Your task to perform on an android device: add a contact Image 0: 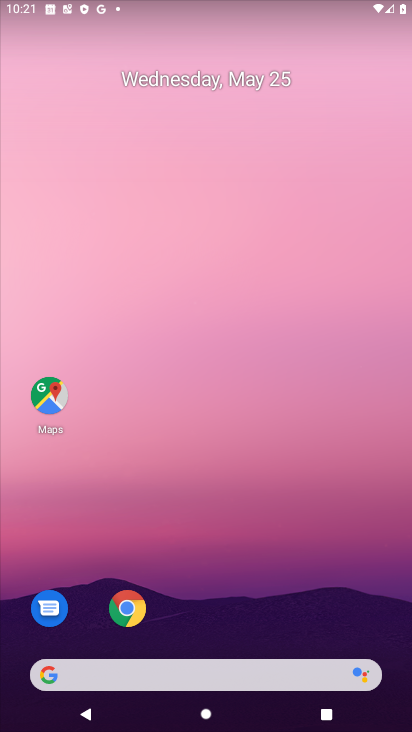
Step 0: drag from (291, 628) to (336, 40)
Your task to perform on an android device: add a contact Image 1: 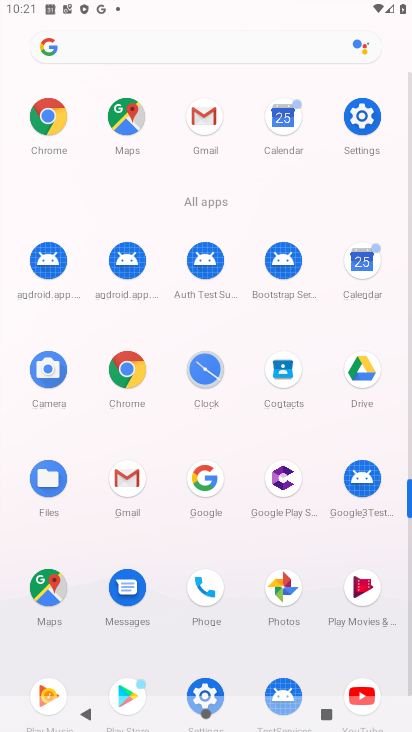
Step 1: click (282, 370)
Your task to perform on an android device: add a contact Image 2: 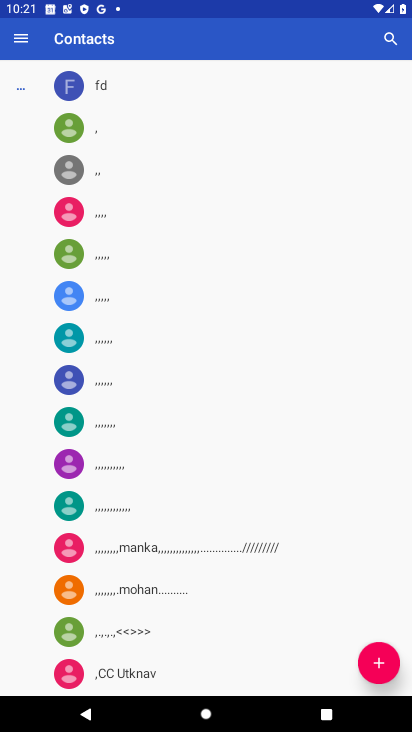
Step 2: click (391, 666)
Your task to perform on an android device: add a contact Image 3: 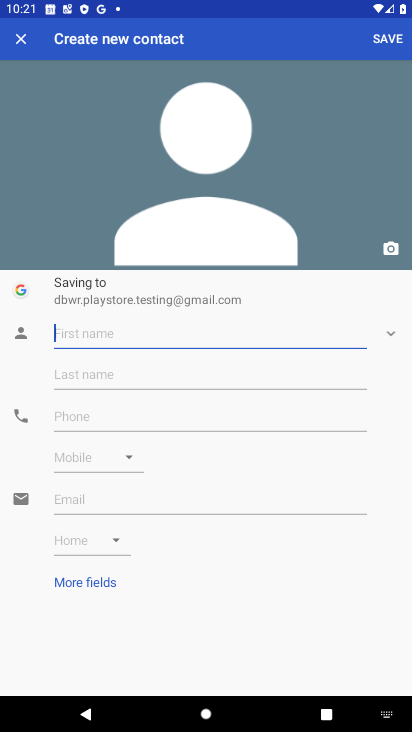
Step 3: click (71, 338)
Your task to perform on an android device: add a contact Image 4: 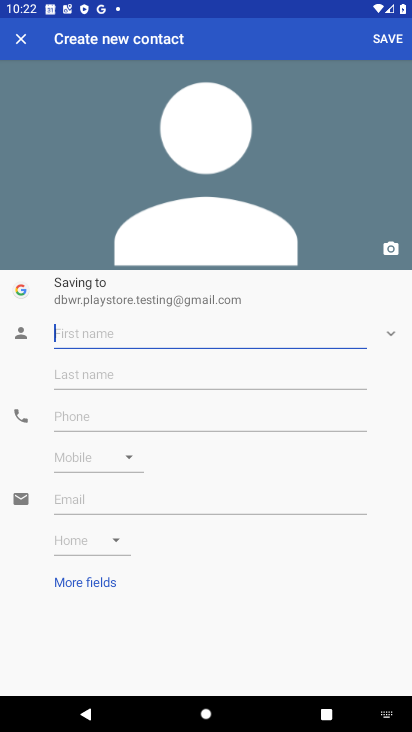
Step 4: type "hina"
Your task to perform on an android device: add a contact Image 5: 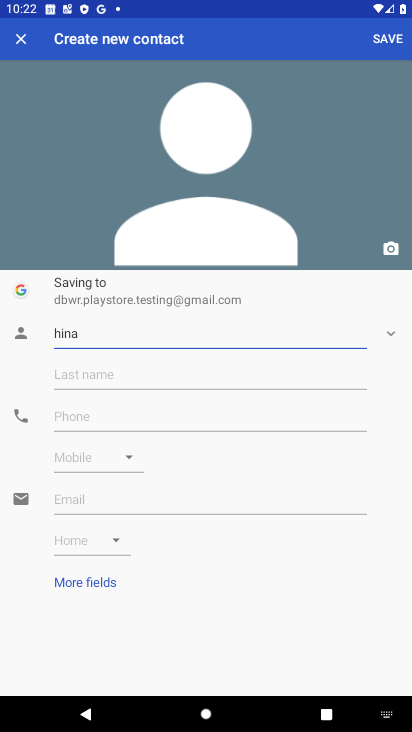
Step 5: click (190, 416)
Your task to perform on an android device: add a contact Image 6: 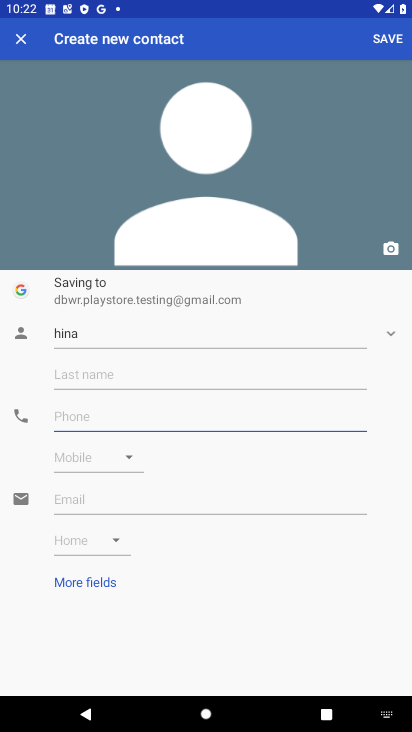
Step 6: type "98765433"
Your task to perform on an android device: add a contact Image 7: 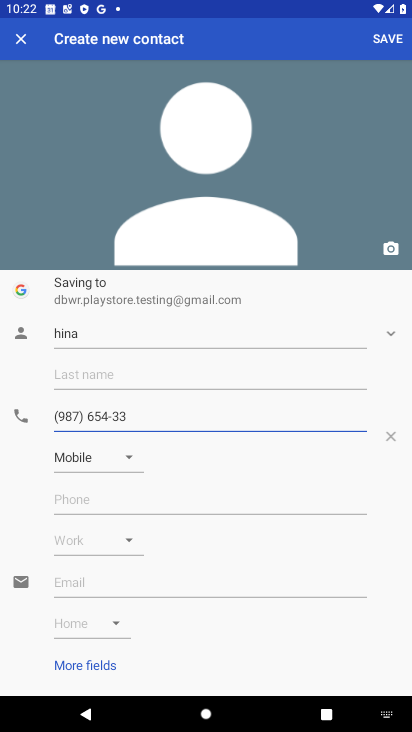
Step 7: click (382, 41)
Your task to perform on an android device: add a contact Image 8: 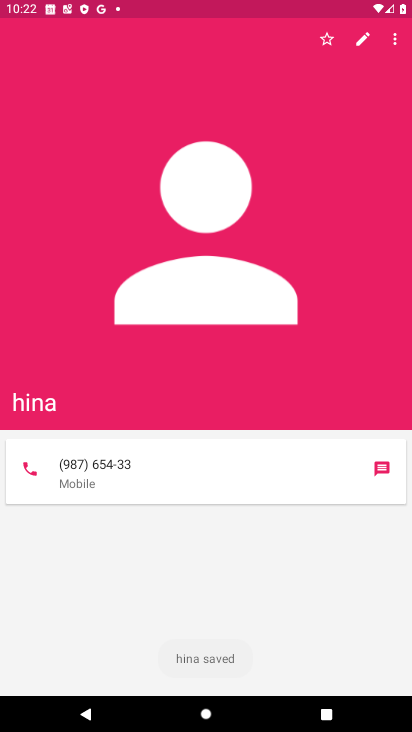
Step 8: task complete